Your task to perform on an android device: Open Chrome and go to settings Image 0: 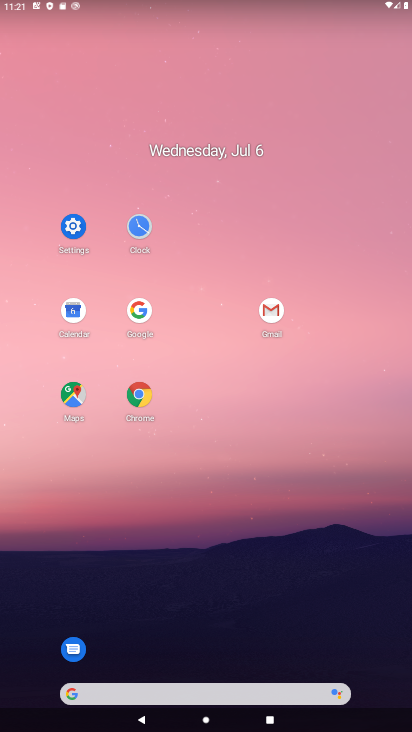
Step 0: click (134, 390)
Your task to perform on an android device: Open Chrome and go to settings Image 1: 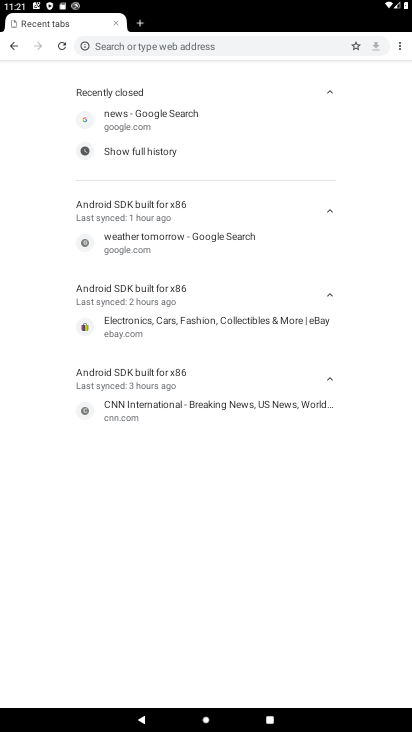
Step 1: click (19, 46)
Your task to perform on an android device: Open Chrome and go to settings Image 2: 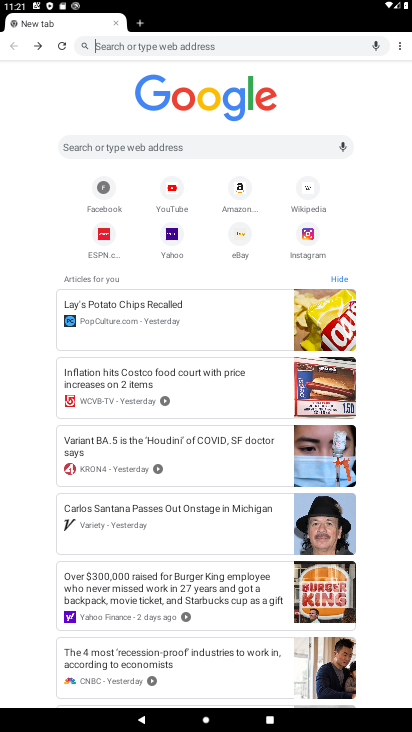
Step 2: click (394, 51)
Your task to perform on an android device: Open Chrome and go to settings Image 3: 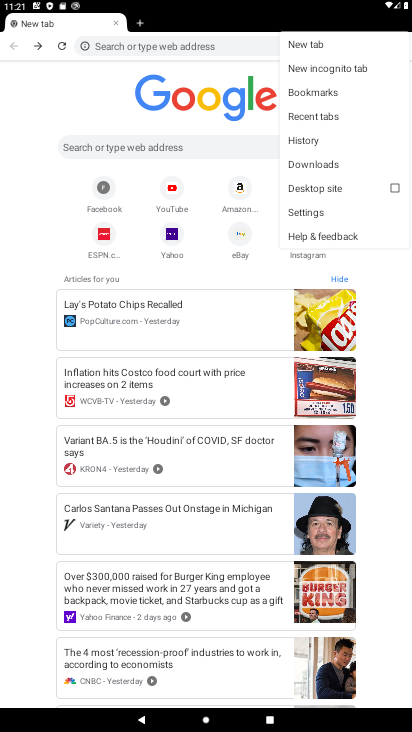
Step 3: click (312, 206)
Your task to perform on an android device: Open Chrome and go to settings Image 4: 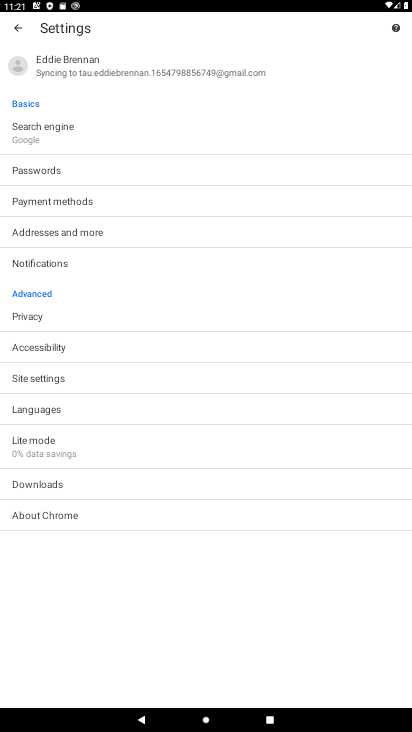
Step 4: task complete